Your task to perform on an android device: When is my next appointment? Image 0: 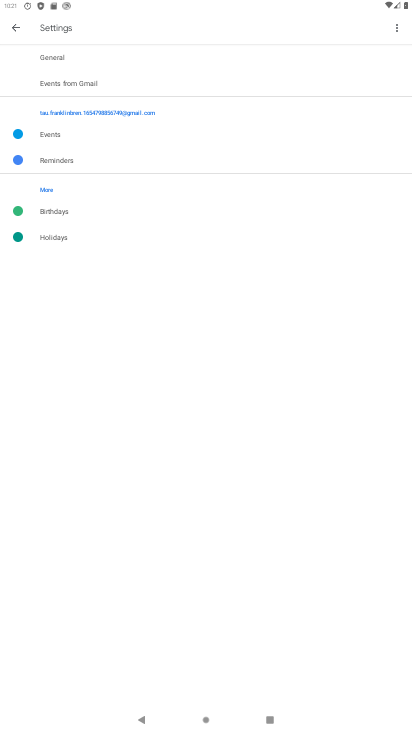
Step 0: press home button
Your task to perform on an android device: When is my next appointment? Image 1: 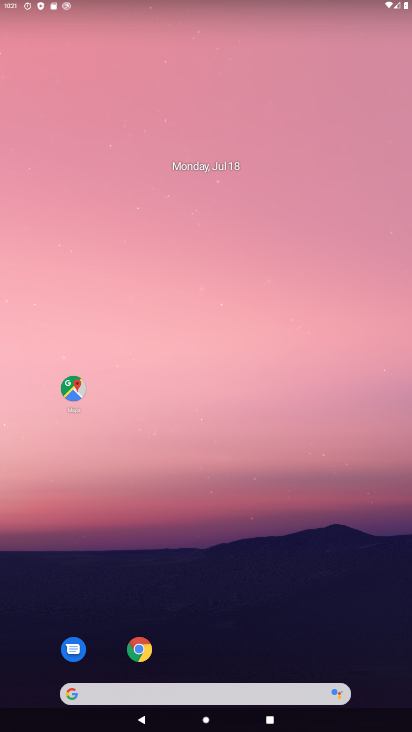
Step 1: drag from (10, 669) to (235, 223)
Your task to perform on an android device: When is my next appointment? Image 2: 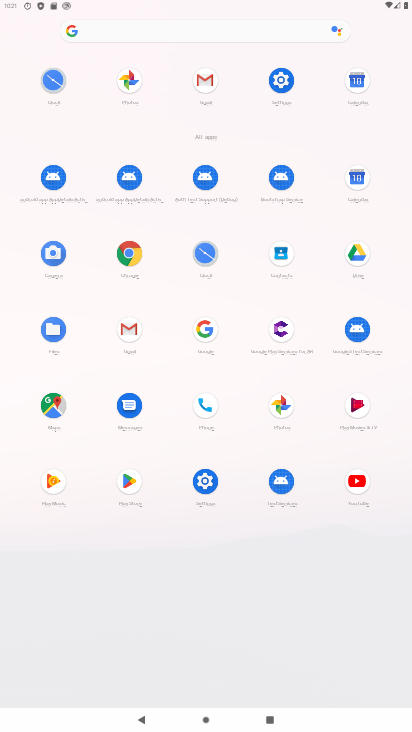
Step 2: click (365, 174)
Your task to perform on an android device: When is my next appointment? Image 3: 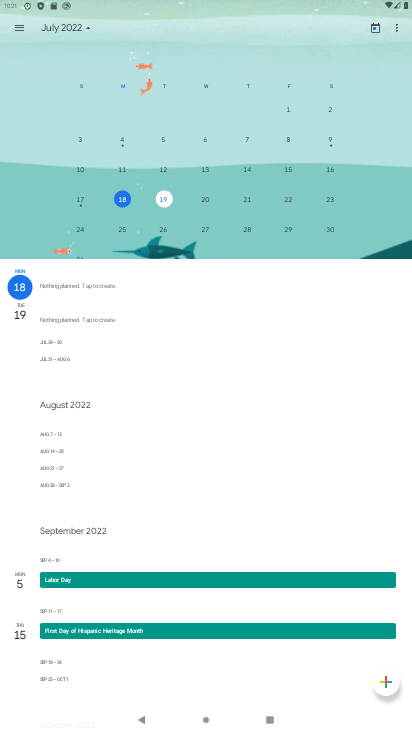
Step 3: click (212, 203)
Your task to perform on an android device: When is my next appointment? Image 4: 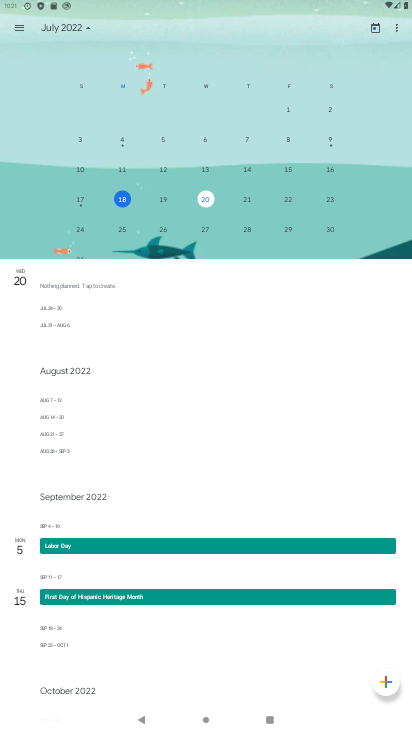
Step 4: task complete